Your task to perform on an android device: change the upload size in google photos Image 0: 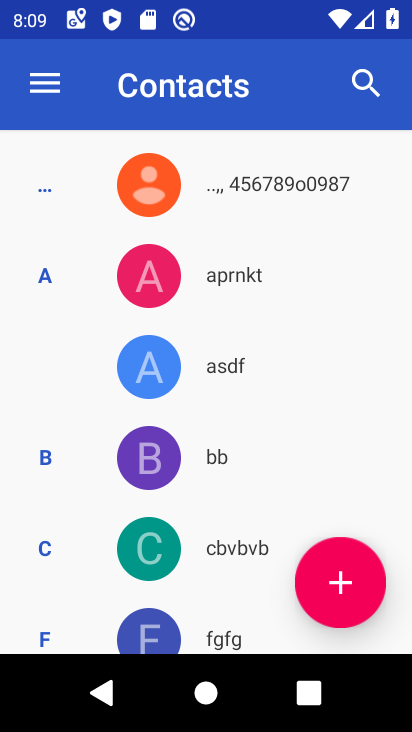
Step 0: press home button
Your task to perform on an android device: change the upload size in google photos Image 1: 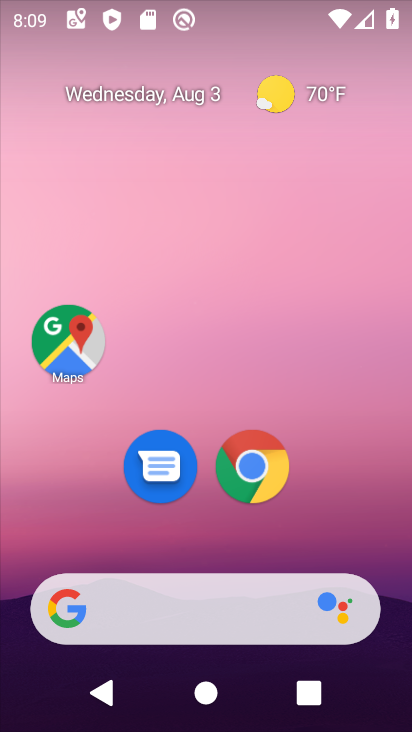
Step 1: drag from (350, 495) to (317, 80)
Your task to perform on an android device: change the upload size in google photos Image 2: 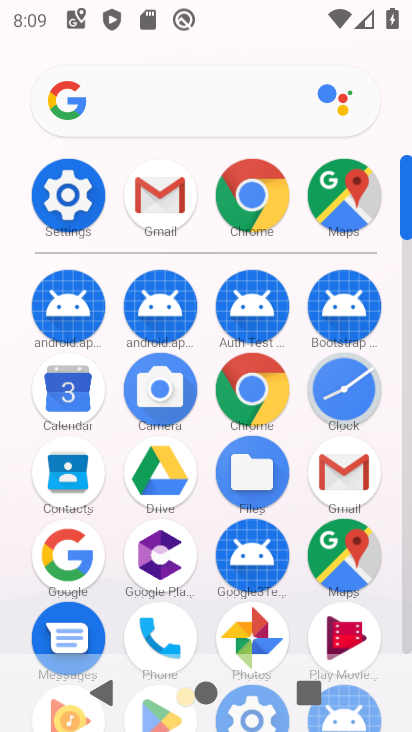
Step 2: click (268, 642)
Your task to perform on an android device: change the upload size in google photos Image 3: 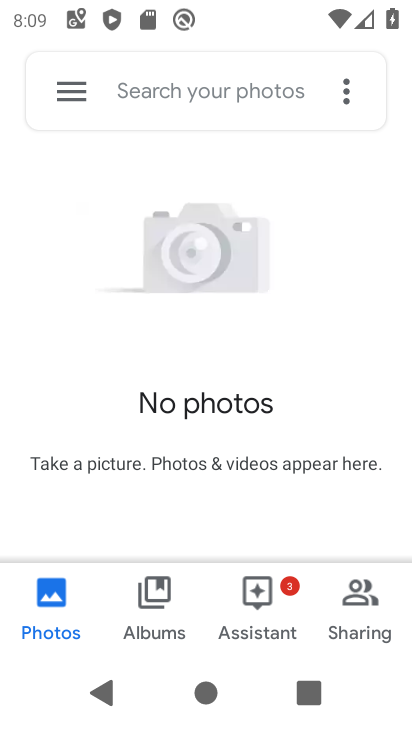
Step 3: click (52, 81)
Your task to perform on an android device: change the upload size in google photos Image 4: 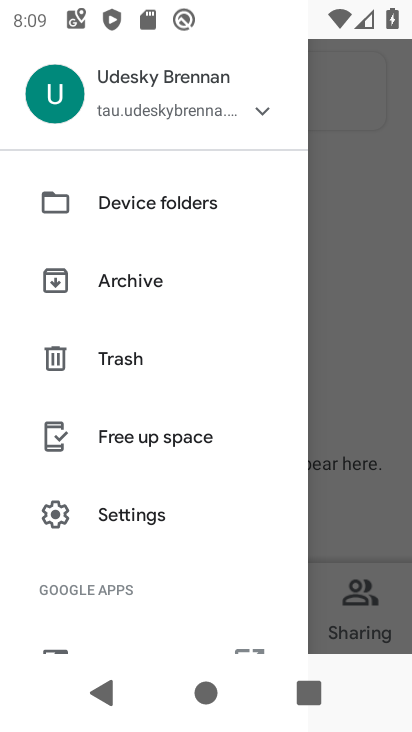
Step 4: drag from (217, 574) to (250, 177)
Your task to perform on an android device: change the upload size in google photos Image 5: 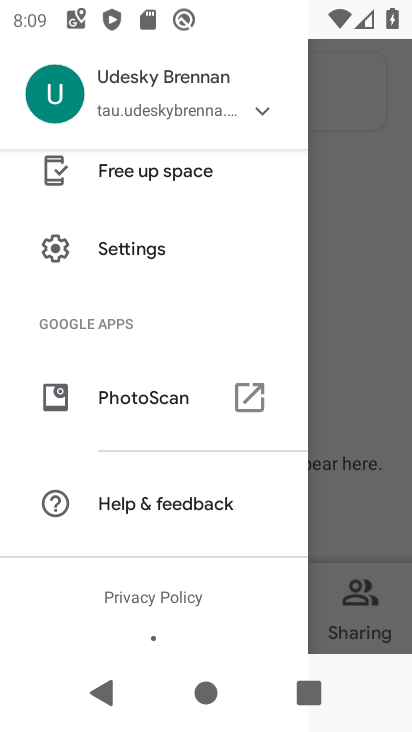
Step 5: click (147, 260)
Your task to perform on an android device: change the upload size in google photos Image 6: 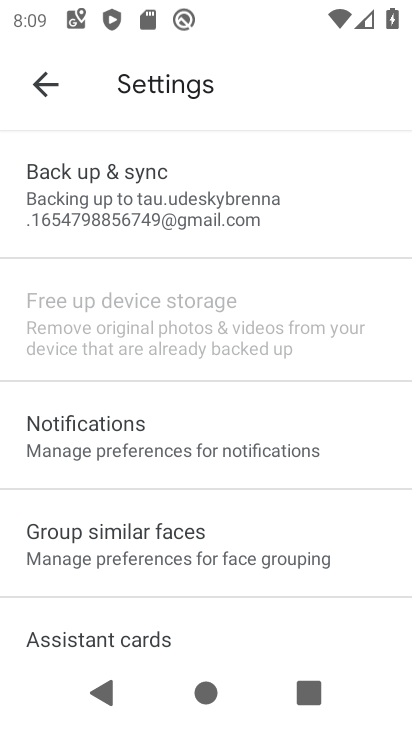
Step 6: drag from (319, 504) to (329, 266)
Your task to perform on an android device: change the upload size in google photos Image 7: 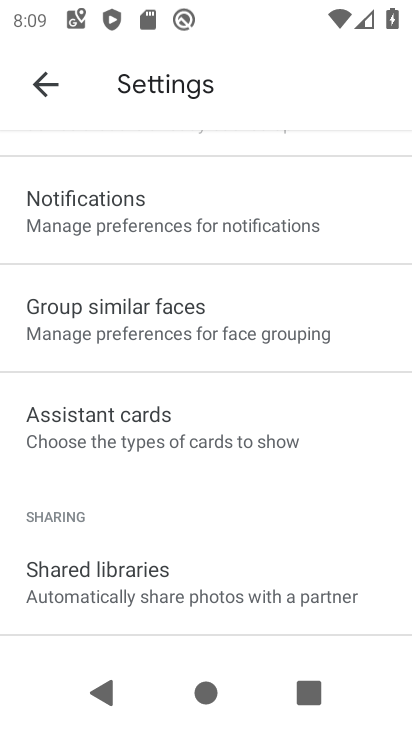
Step 7: drag from (315, 506) to (364, 205)
Your task to perform on an android device: change the upload size in google photos Image 8: 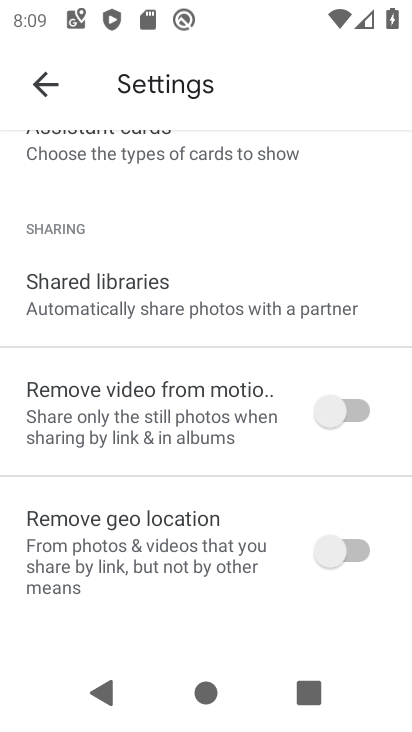
Step 8: drag from (199, 591) to (246, 183)
Your task to perform on an android device: change the upload size in google photos Image 9: 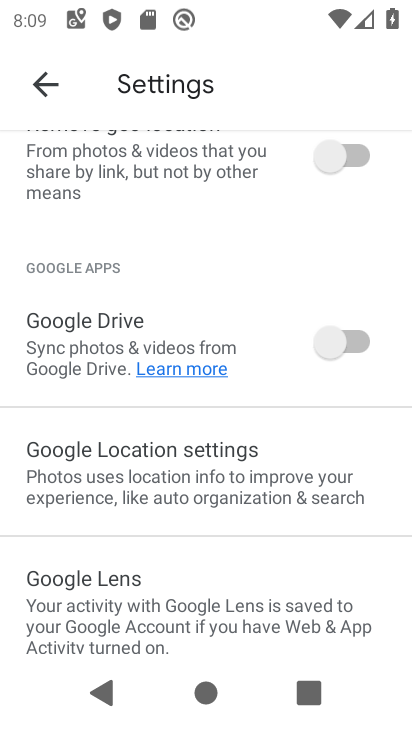
Step 9: drag from (261, 562) to (320, 243)
Your task to perform on an android device: change the upload size in google photos Image 10: 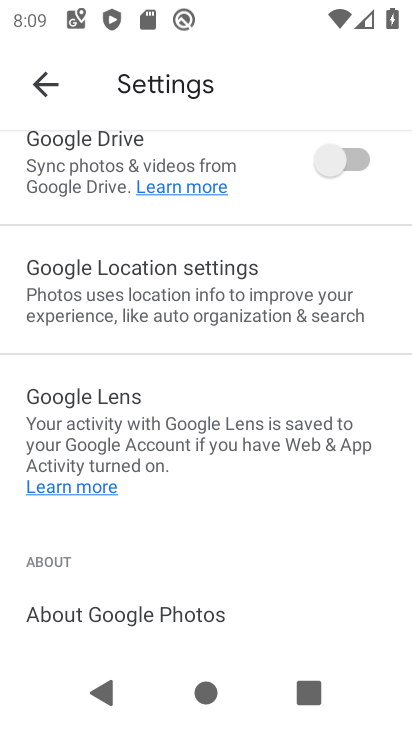
Step 10: drag from (384, 273) to (336, 640)
Your task to perform on an android device: change the upload size in google photos Image 11: 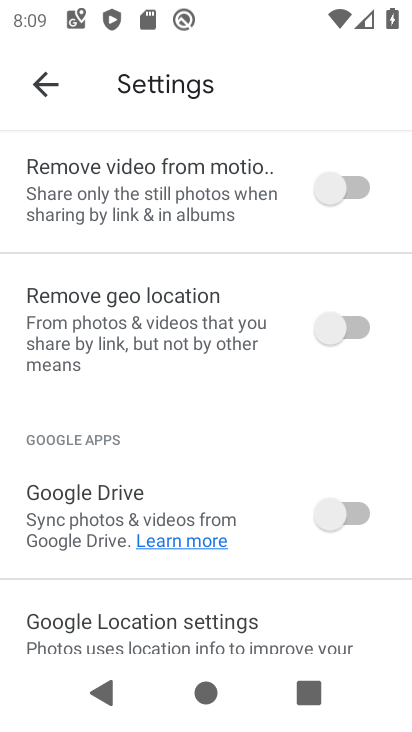
Step 11: drag from (310, 224) to (229, 544)
Your task to perform on an android device: change the upload size in google photos Image 12: 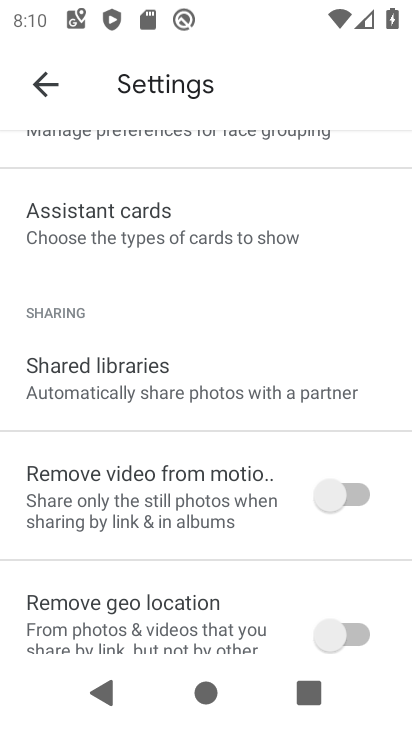
Step 12: drag from (235, 301) to (229, 472)
Your task to perform on an android device: change the upload size in google photos Image 13: 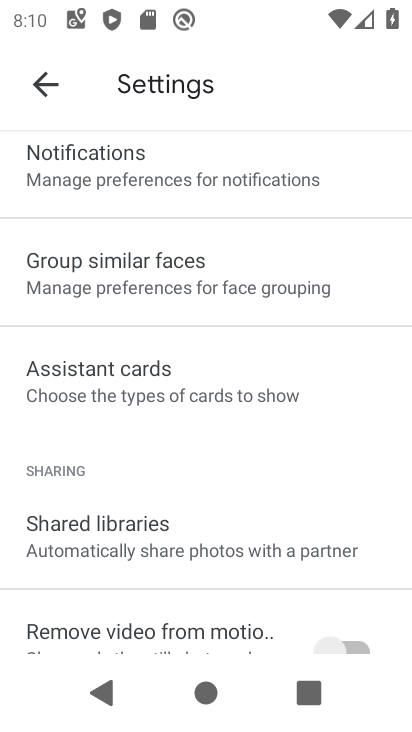
Step 13: drag from (290, 250) to (332, 614)
Your task to perform on an android device: change the upload size in google photos Image 14: 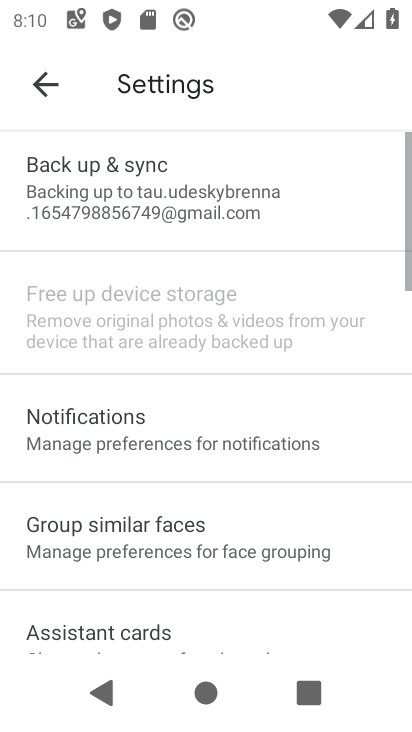
Step 14: click (211, 226)
Your task to perform on an android device: change the upload size in google photos Image 15: 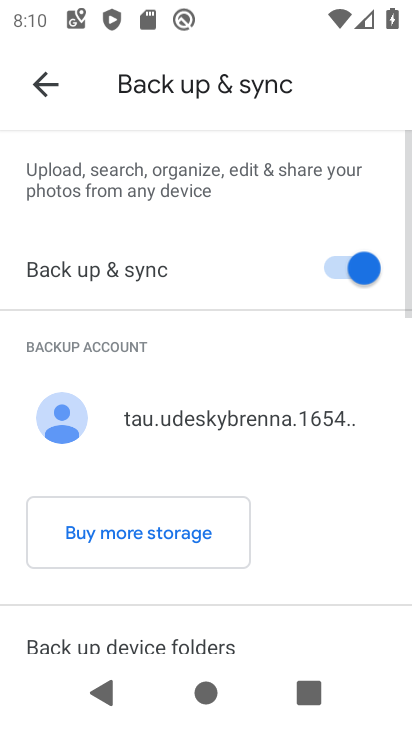
Step 15: drag from (354, 495) to (368, 136)
Your task to perform on an android device: change the upload size in google photos Image 16: 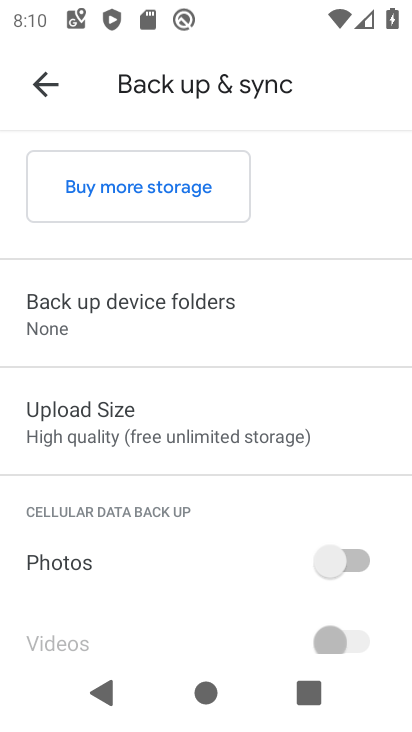
Step 16: click (202, 399)
Your task to perform on an android device: change the upload size in google photos Image 17: 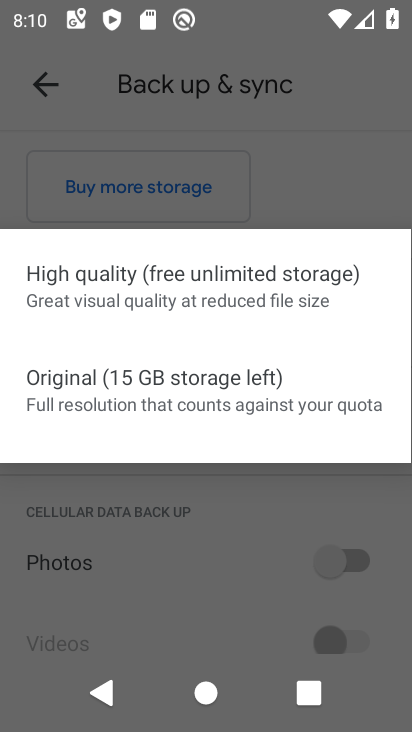
Step 17: click (202, 399)
Your task to perform on an android device: change the upload size in google photos Image 18: 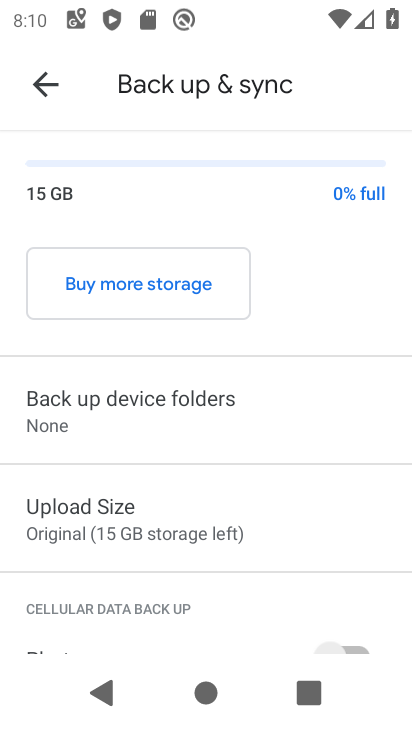
Step 18: task complete